Your task to perform on an android device: Open sound settings Image 0: 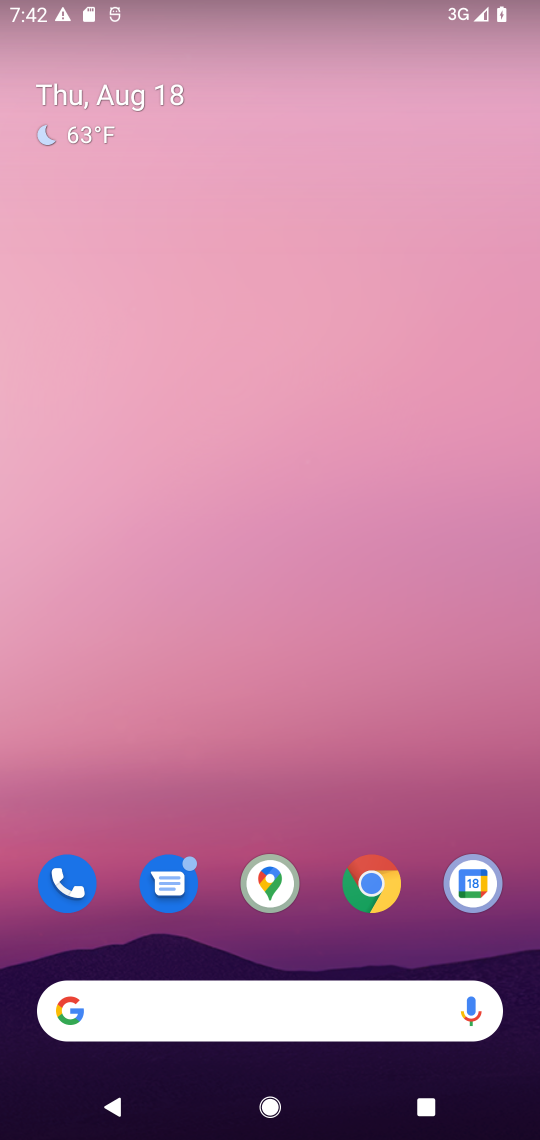
Step 0: drag from (33, 1097) to (322, 302)
Your task to perform on an android device: Open sound settings Image 1: 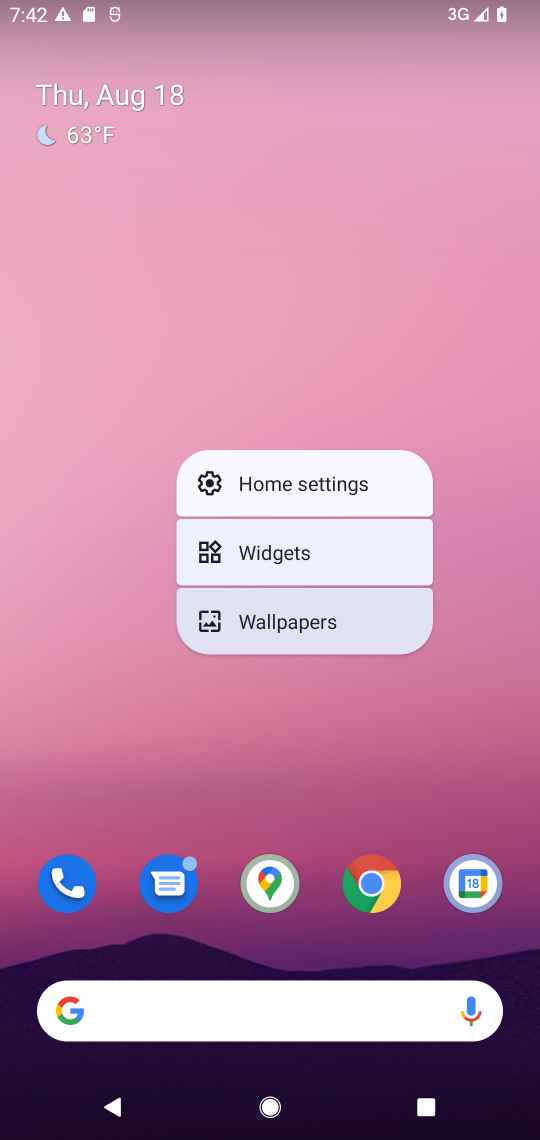
Step 1: task complete